Your task to perform on an android device: Open calendar and show me the second week of next month Image 0: 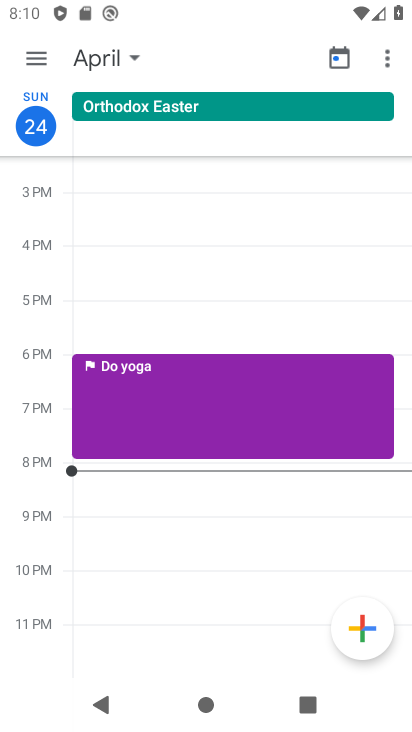
Step 0: press home button
Your task to perform on an android device: Open calendar and show me the second week of next month Image 1: 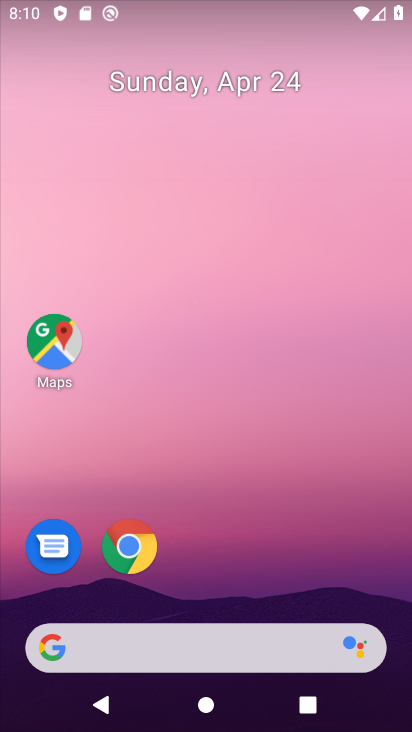
Step 1: drag from (200, 541) to (198, 92)
Your task to perform on an android device: Open calendar and show me the second week of next month Image 2: 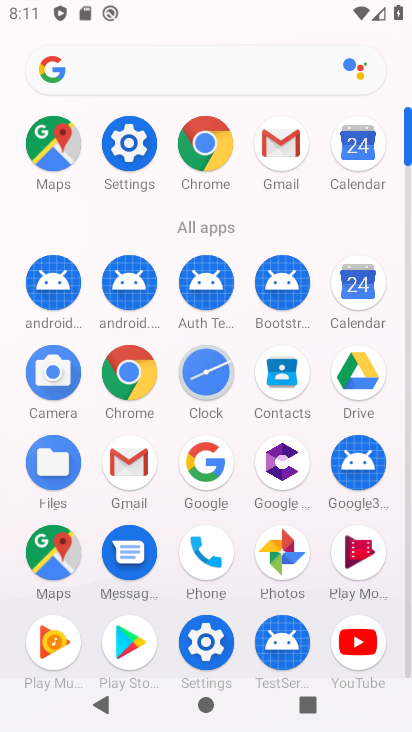
Step 2: click (363, 280)
Your task to perform on an android device: Open calendar and show me the second week of next month Image 3: 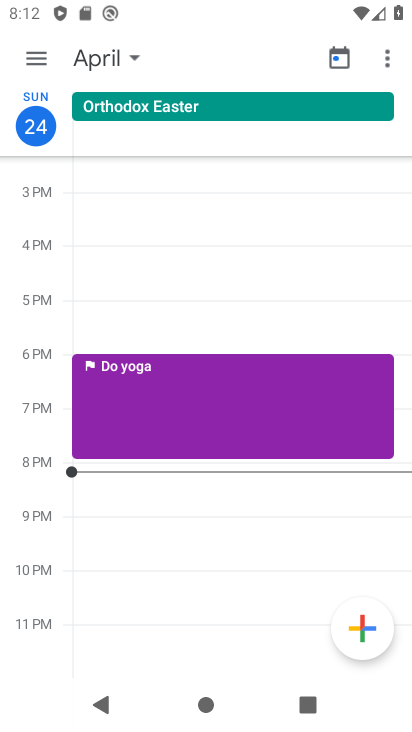
Step 3: click (97, 67)
Your task to perform on an android device: Open calendar and show me the second week of next month Image 4: 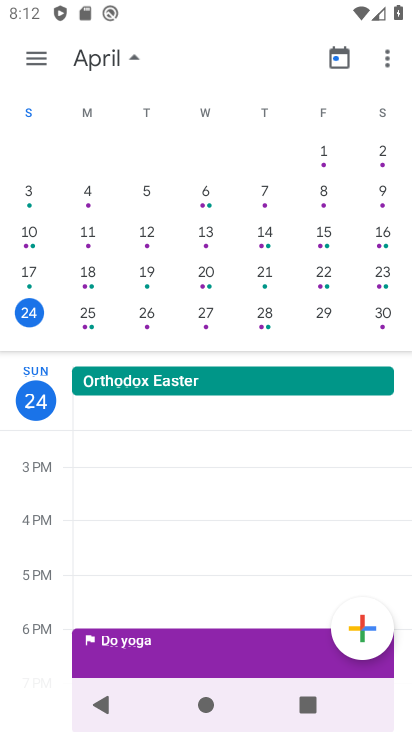
Step 4: click (112, 60)
Your task to perform on an android device: Open calendar and show me the second week of next month Image 5: 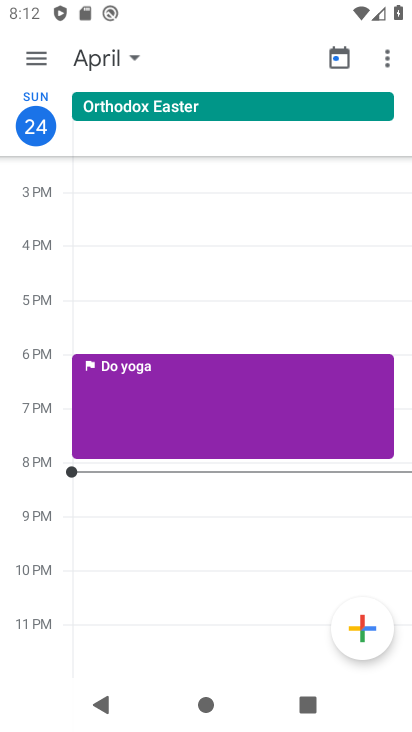
Step 5: click (99, 54)
Your task to perform on an android device: Open calendar and show me the second week of next month Image 6: 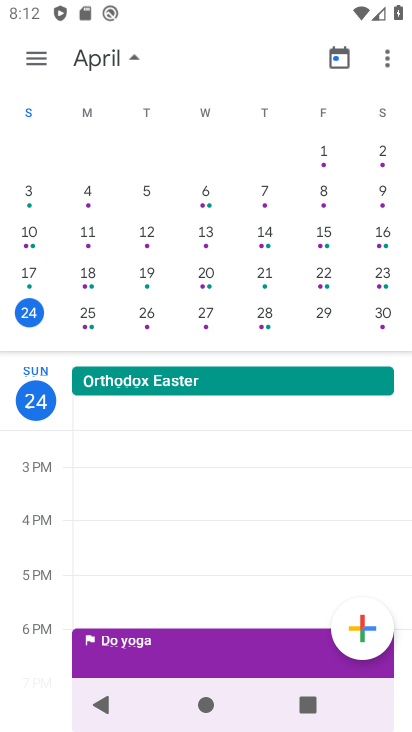
Step 6: task complete